Your task to perform on an android device: What time is it in Paris? Image 0: 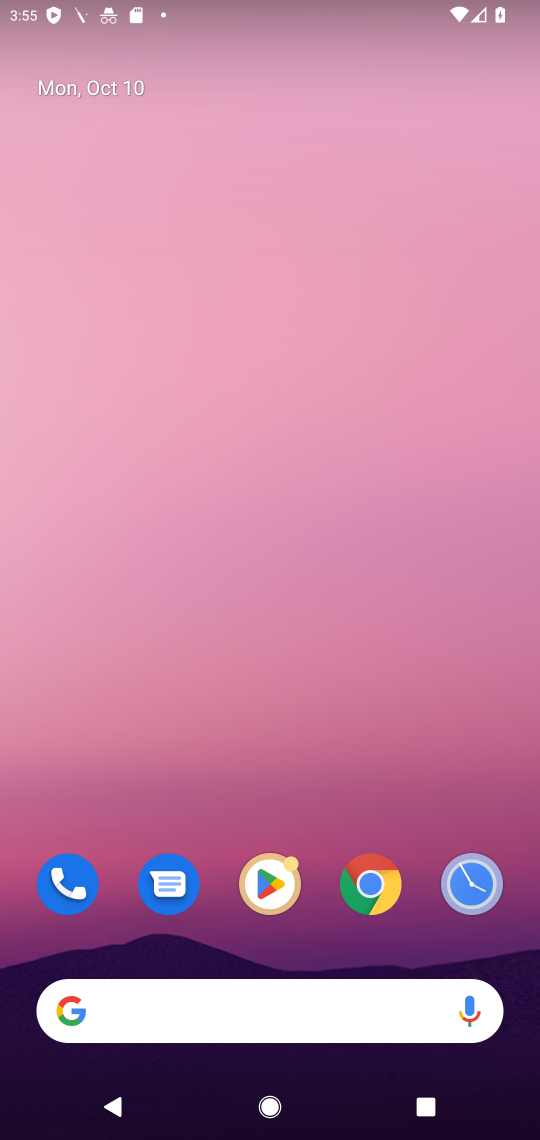
Step 0: click (301, 1010)
Your task to perform on an android device: What time is it in Paris? Image 1: 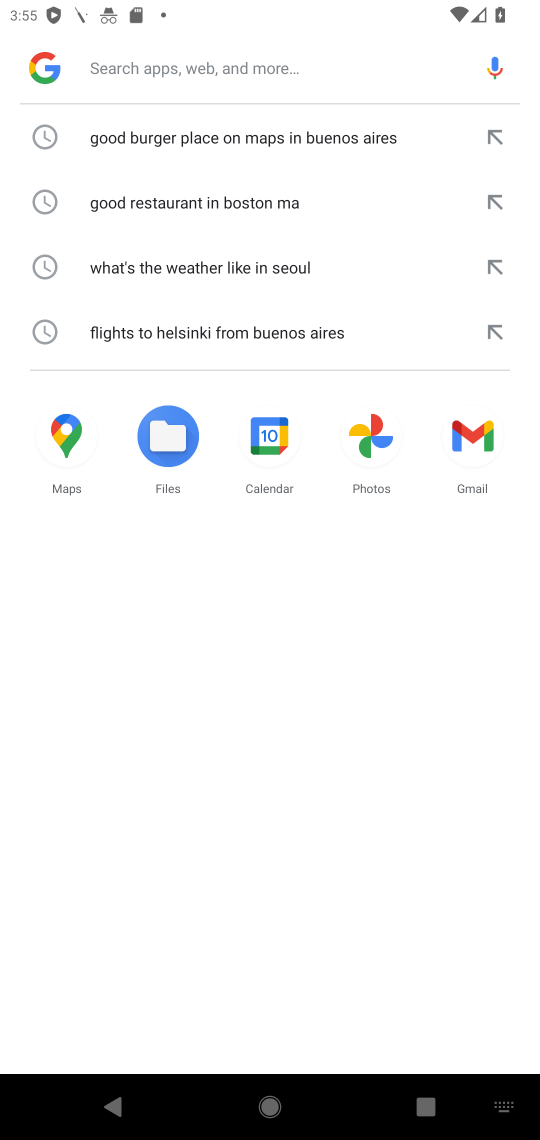
Step 1: type "What time is it in Paris?"
Your task to perform on an android device: What time is it in Paris? Image 2: 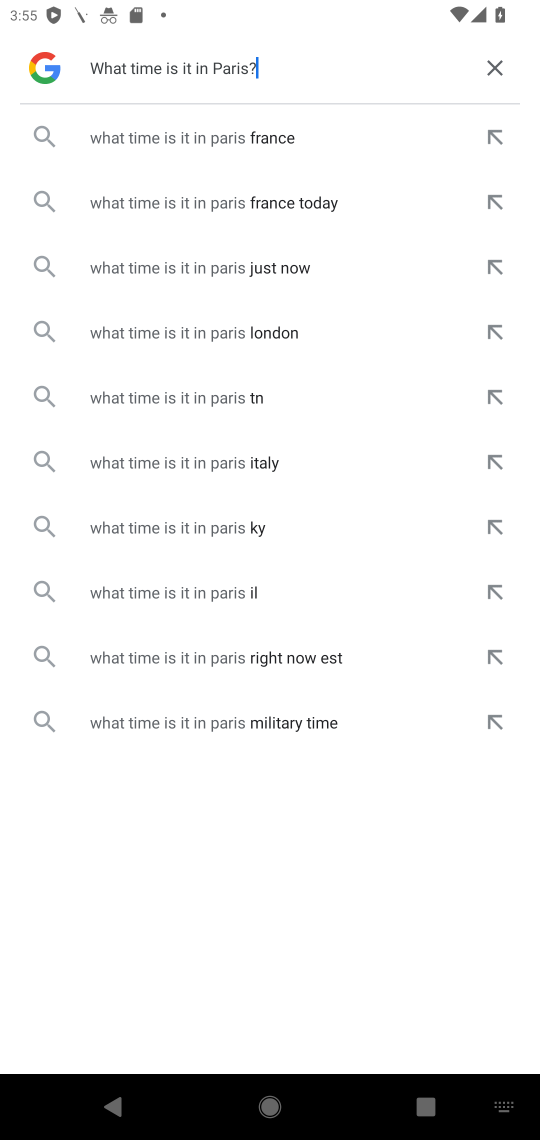
Step 2: click (223, 395)
Your task to perform on an android device: What time is it in Paris? Image 3: 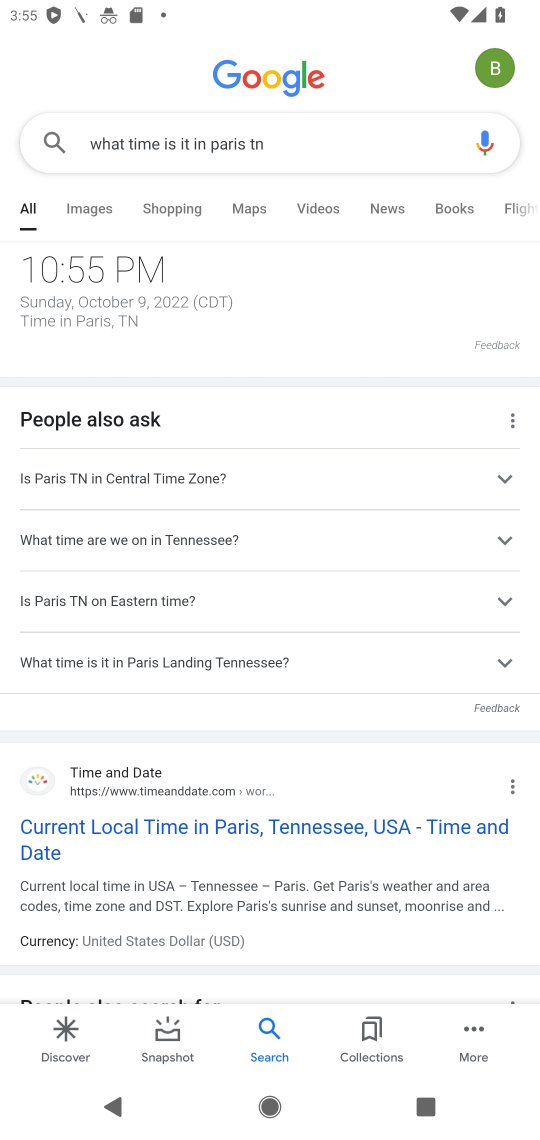
Step 3: task complete